Your task to perform on an android device: turn on showing notifications on the lock screen Image 0: 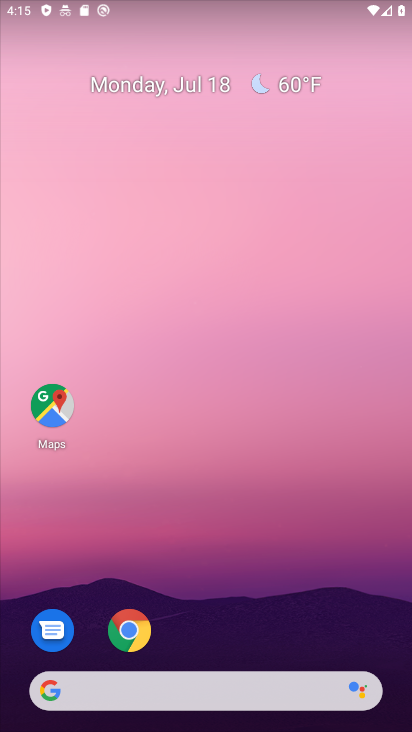
Step 0: drag from (215, 396) to (234, 261)
Your task to perform on an android device: turn on showing notifications on the lock screen Image 1: 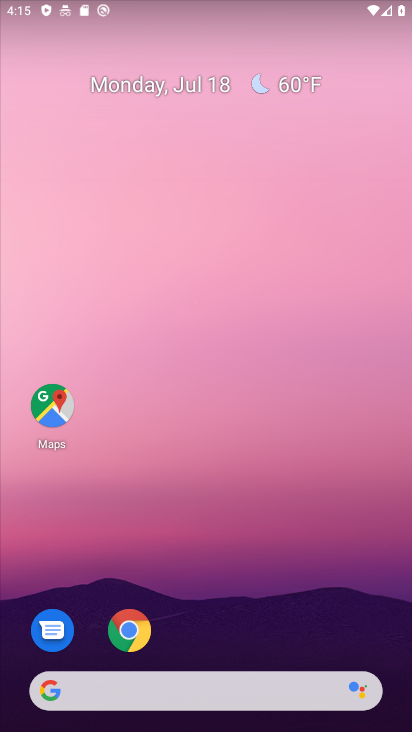
Step 1: drag from (184, 421) to (201, 198)
Your task to perform on an android device: turn on showing notifications on the lock screen Image 2: 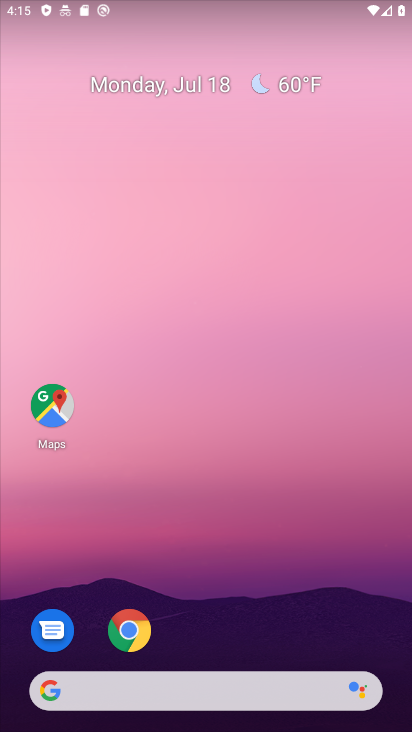
Step 2: drag from (240, 729) to (214, 286)
Your task to perform on an android device: turn on showing notifications on the lock screen Image 3: 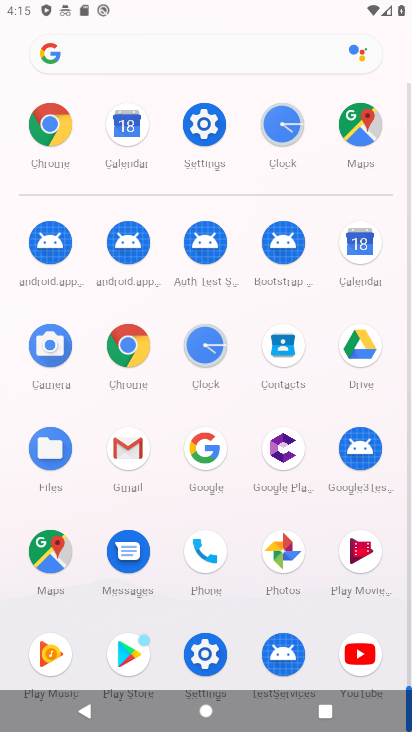
Step 3: click (192, 126)
Your task to perform on an android device: turn on showing notifications on the lock screen Image 4: 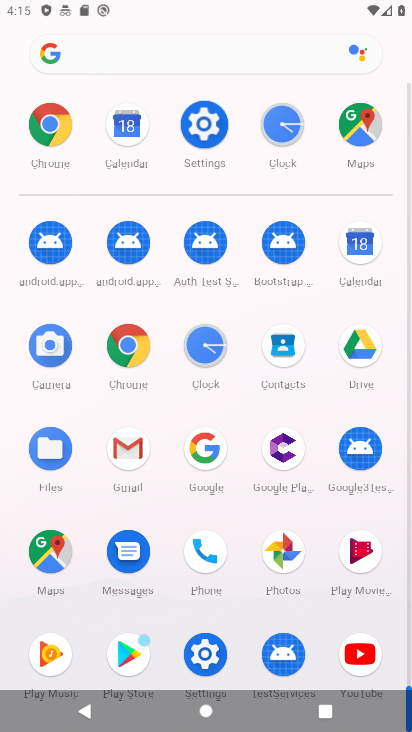
Step 4: click (194, 122)
Your task to perform on an android device: turn on showing notifications on the lock screen Image 5: 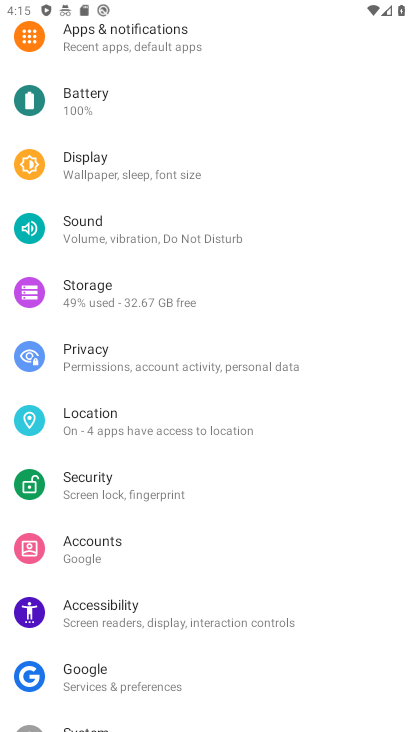
Step 5: click (131, 42)
Your task to perform on an android device: turn on showing notifications on the lock screen Image 6: 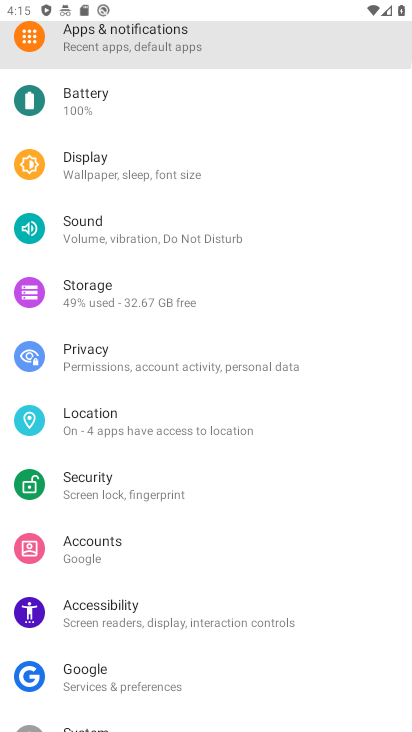
Step 6: click (134, 38)
Your task to perform on an android device: turn on showing notifications on the lock screen Image 7: 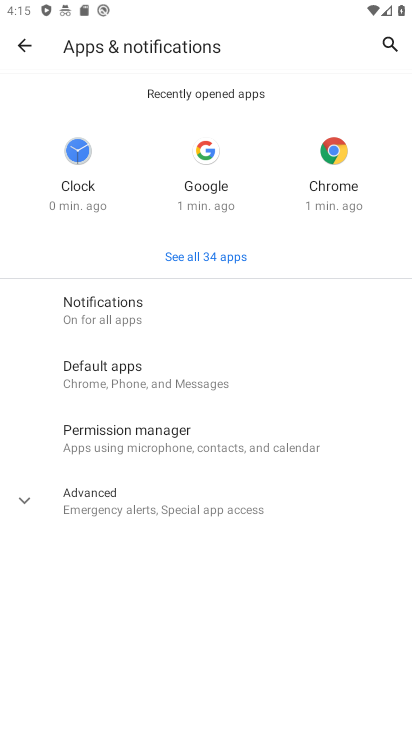
Step 7: click (104, 317)
Your task to perform on an android device: turn on showing notifications on the lock screen Image 8: 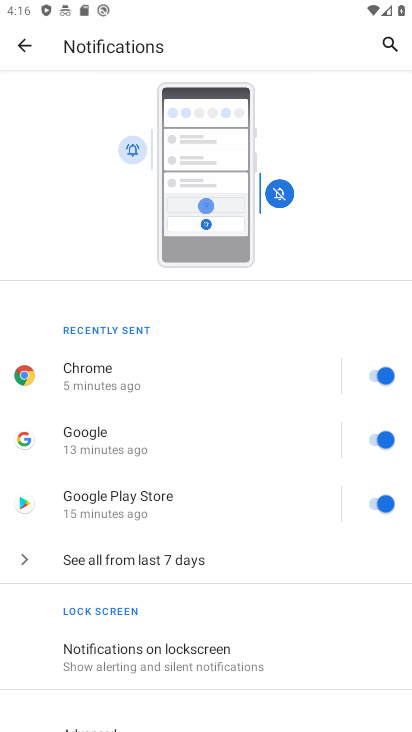
Step 8: click (135, 648)
Your task to perform on an android device: turn on showing notifications on the lock screen Image 9: 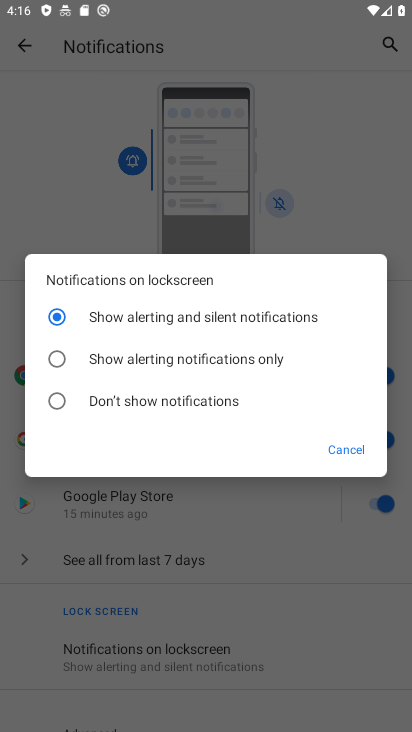
Step 9: click (341, 453)
Your task to perform on an android device: turn on showing notifications on the lock screen Image 10: 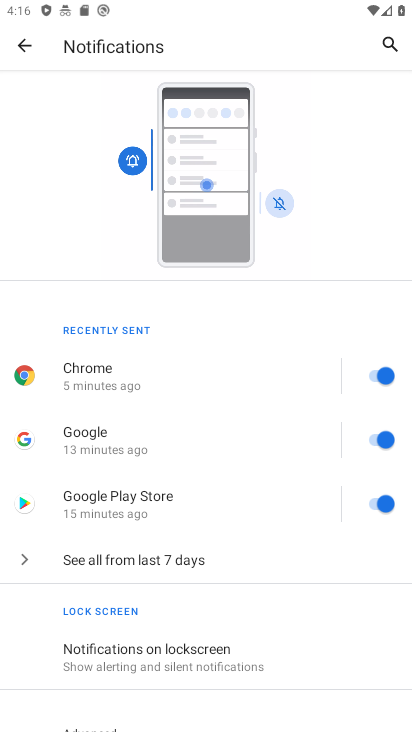
Step 10: task complete